Your task to perform on an android device: snooze an email in the gmail app Image 0: 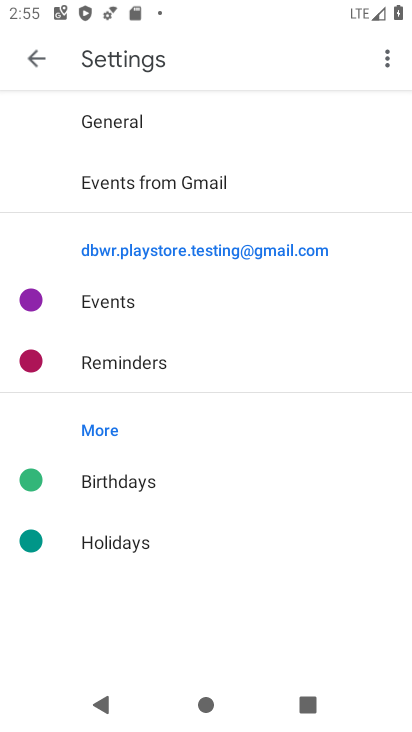
Step 0: press home button
Your task to perform on an android device: snooze an email in the gmail app Image 1: 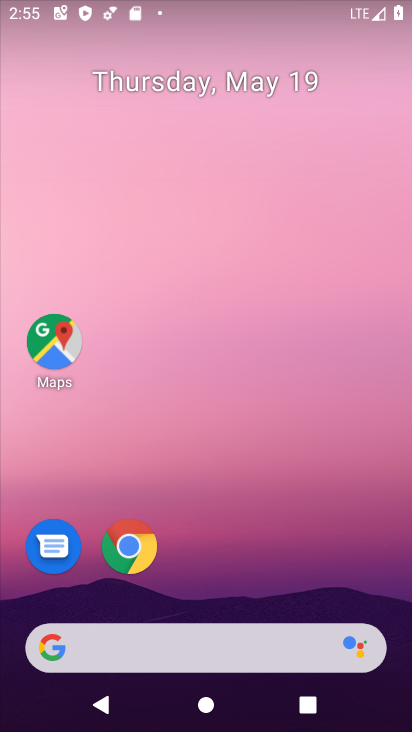
Step 1: drag from (222, 629) to (339, 201)
Your task to perform on an android device: snooze an email in the gmail app Image 2: 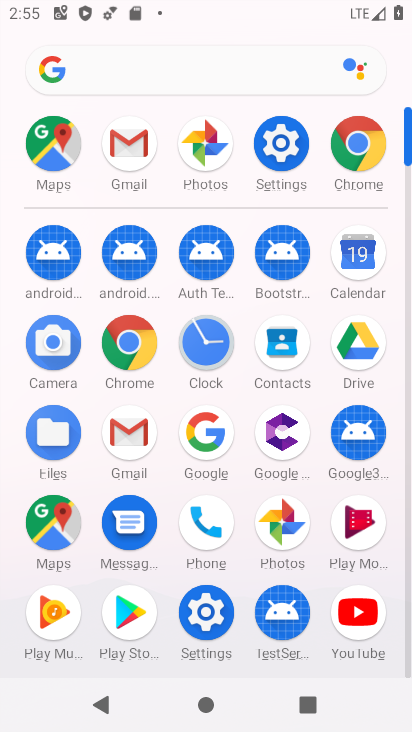
Step 2: click (139, 139)
Your task to perform on an android device: snooze an email in the gmail app Image 3: 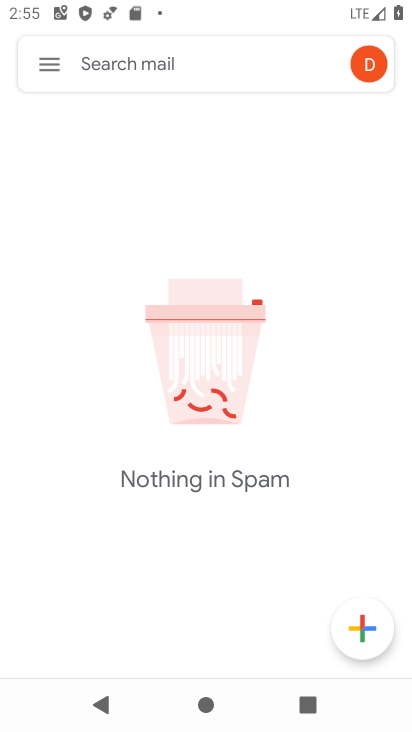
Step 3: click (46, 66)
Your task to perform on an android device: snooze an email in the gmail app Image 4: 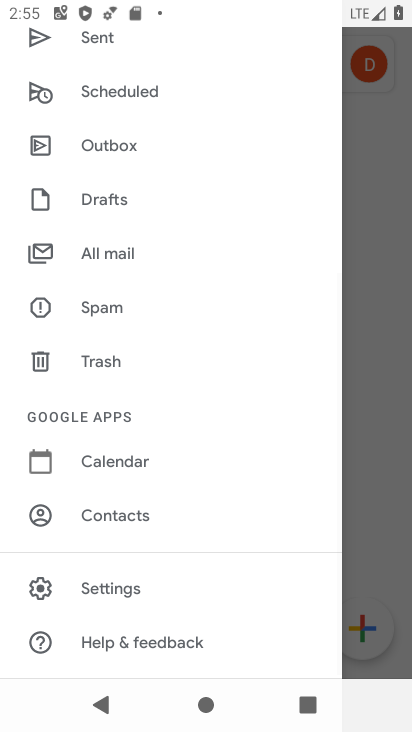
Step 4: click (121, 264)
Your task to perform on an android device: snooze an email in the gmail app Image 5: 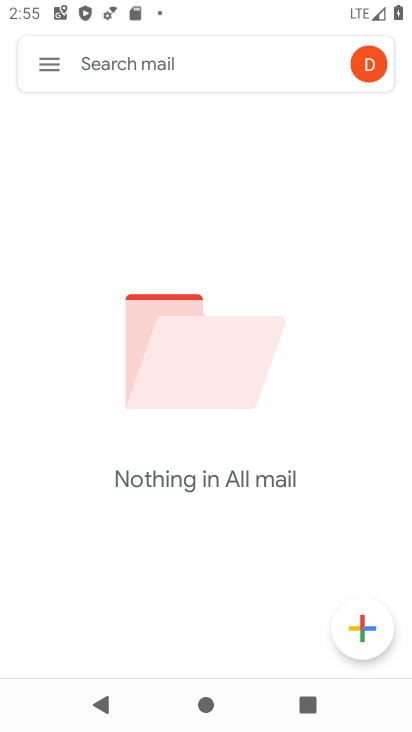
Step 5: task complete